Your task to perform on an android device: Empty the shopping cart on target.com. Add razer deathadder to the cart on target.com Image 0: 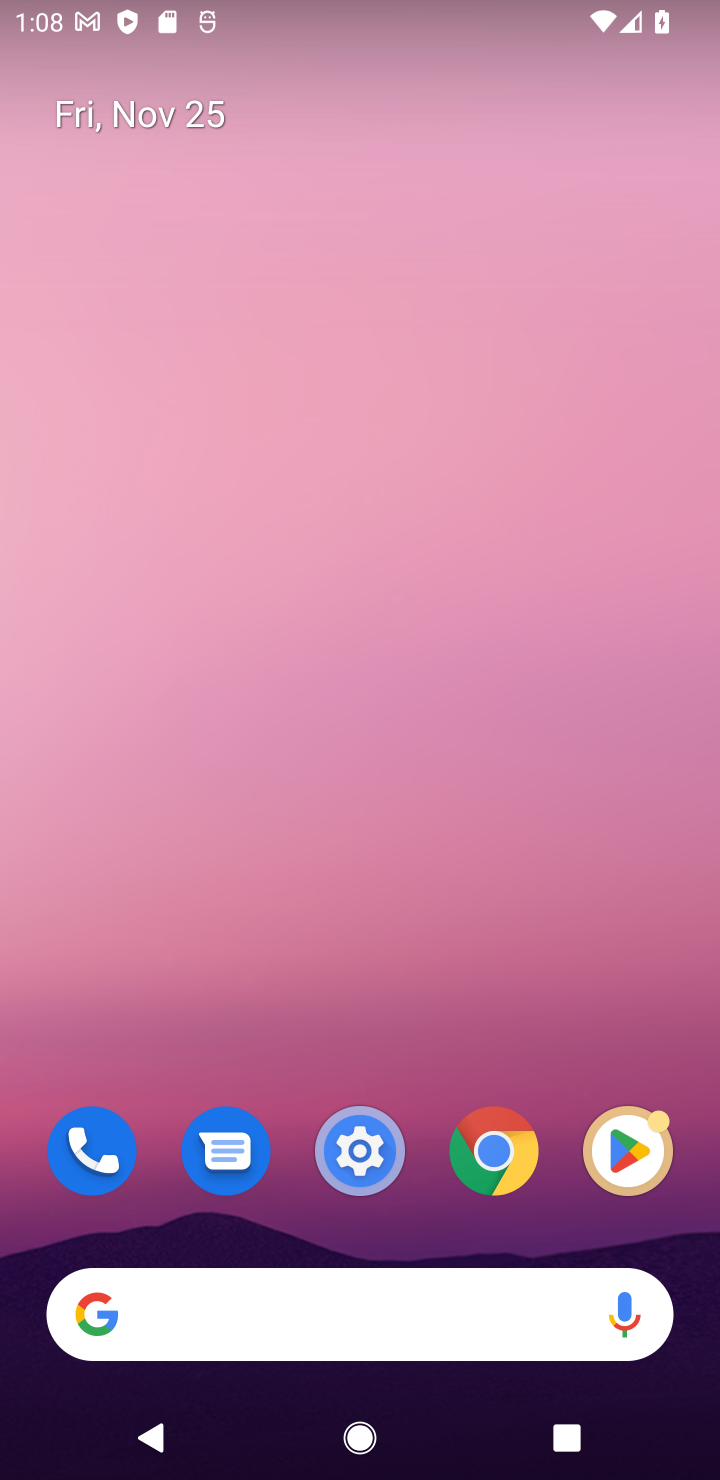
Step 0: click (385, 1298)
Your task to perform on an android device: Empty the shopping cart on target.com. Add razer deathadder to the cart on target.com Image 1: 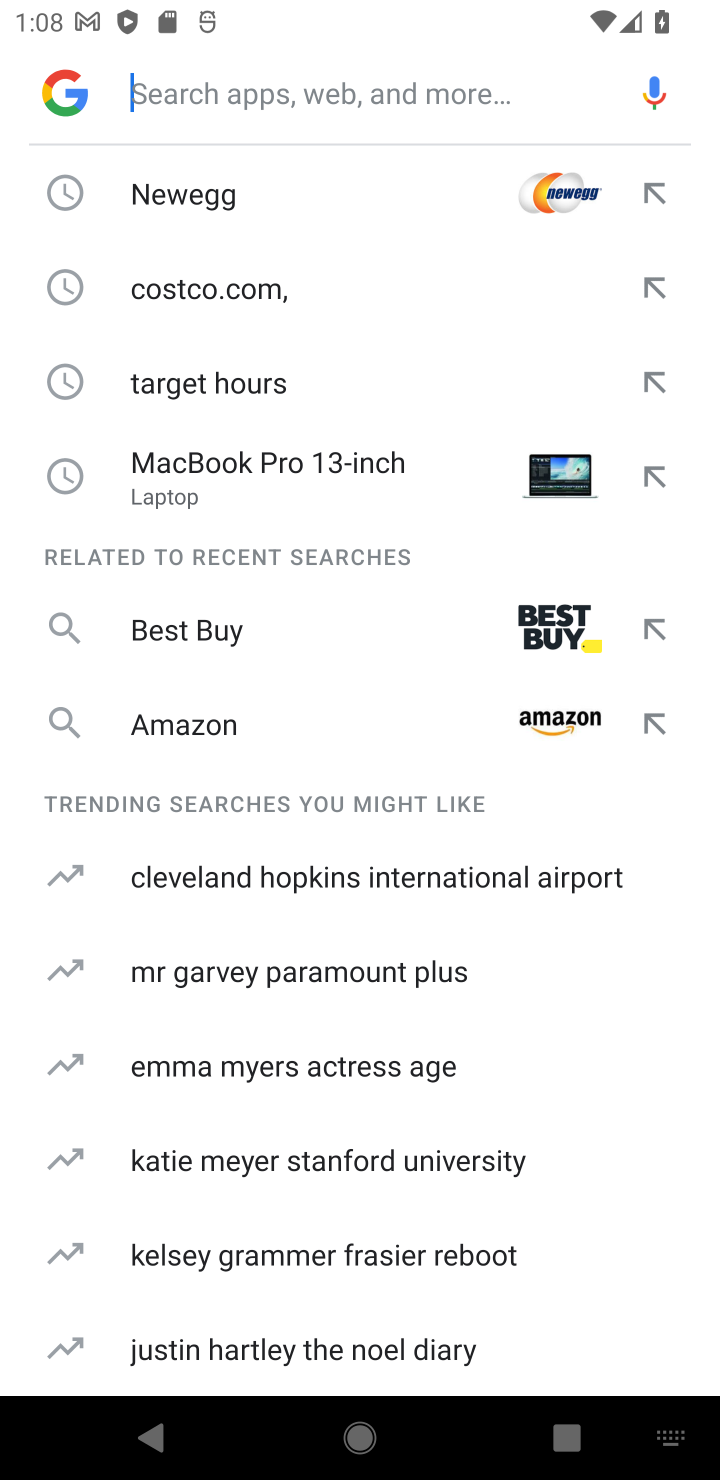
Step 1: type "target"
Your task to perform on an android device: Empty the shopping cart on target.com. Add razer deathadder to the cart on target.com Image 2: 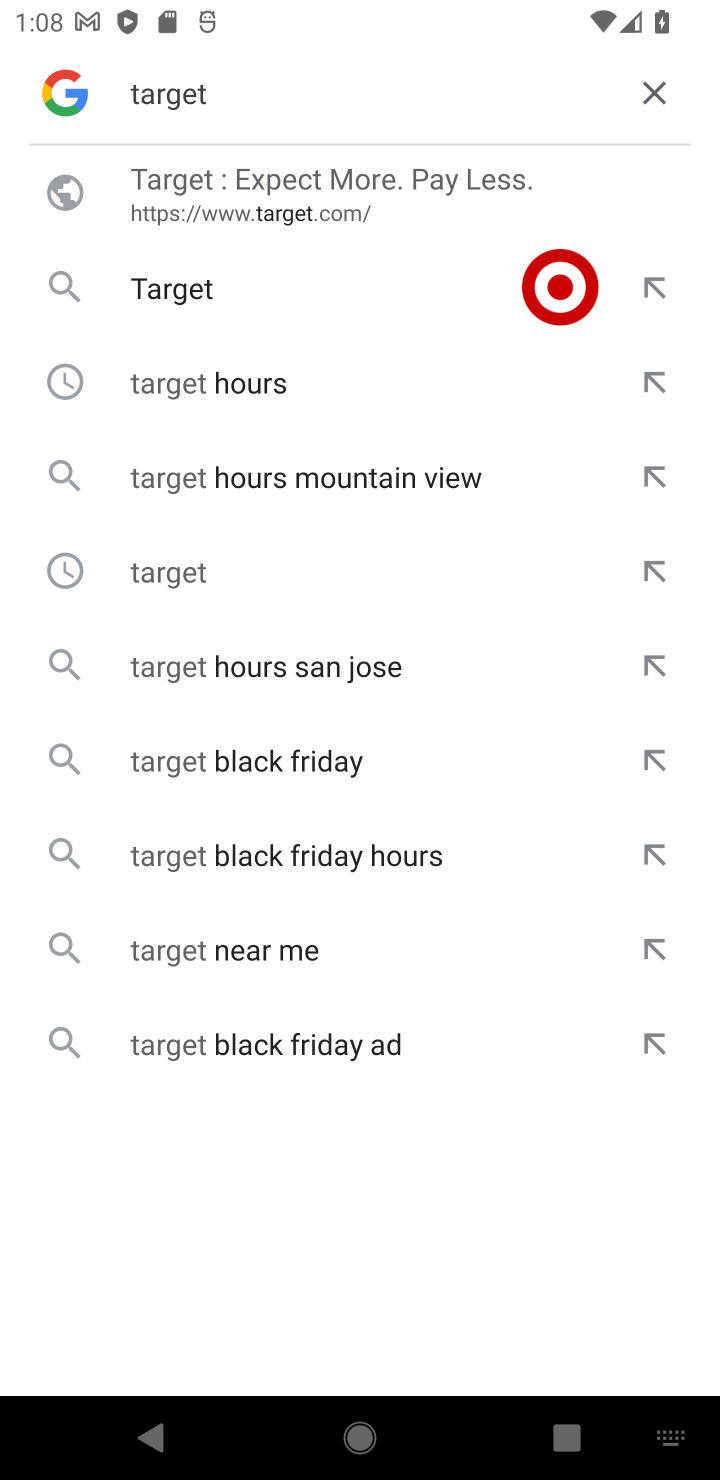
Step 2: click (299, 207)
Your task to perform on an android device: Empty the shopping cart on target.com. Add razer deathadder to the cart on target.com Image 3: 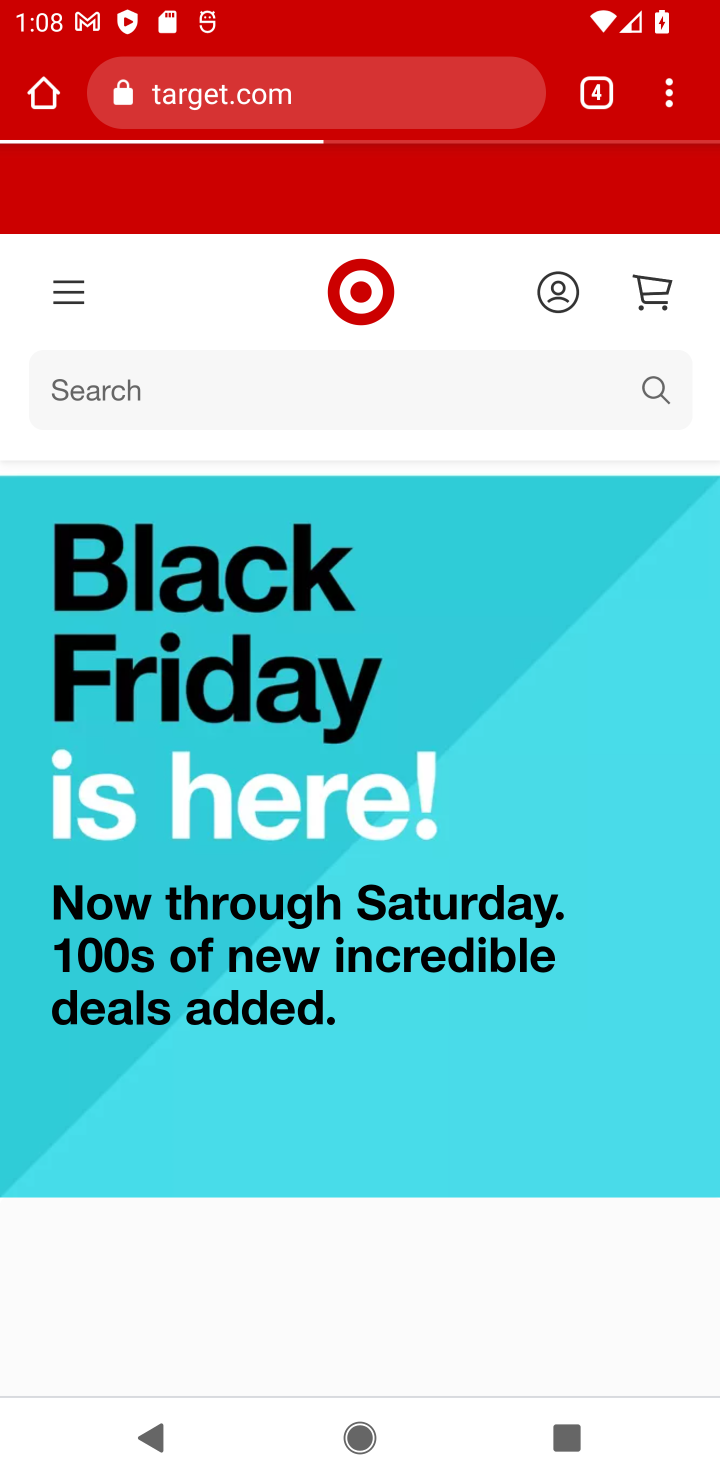
Step 3: click (381, 390)
Your task to perform on an android device: Empty the shopping cart on target.com. Add razer deathadder to the cart on target.com Image 4: 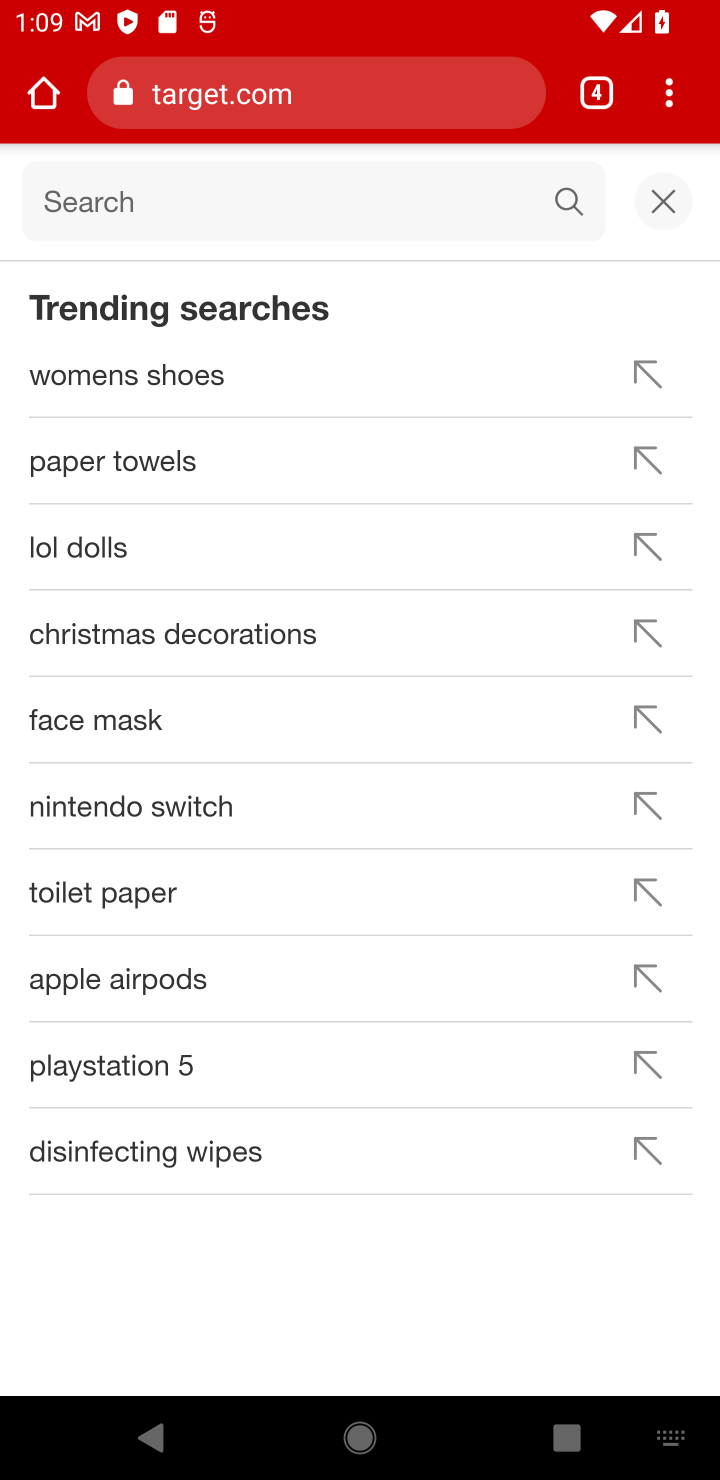
Step 4: type "razer deathhadder"
Your task to perform on an android device: Empty the shopping cart on target.com. Add razer deathadder to the cart on target.com Image 5: 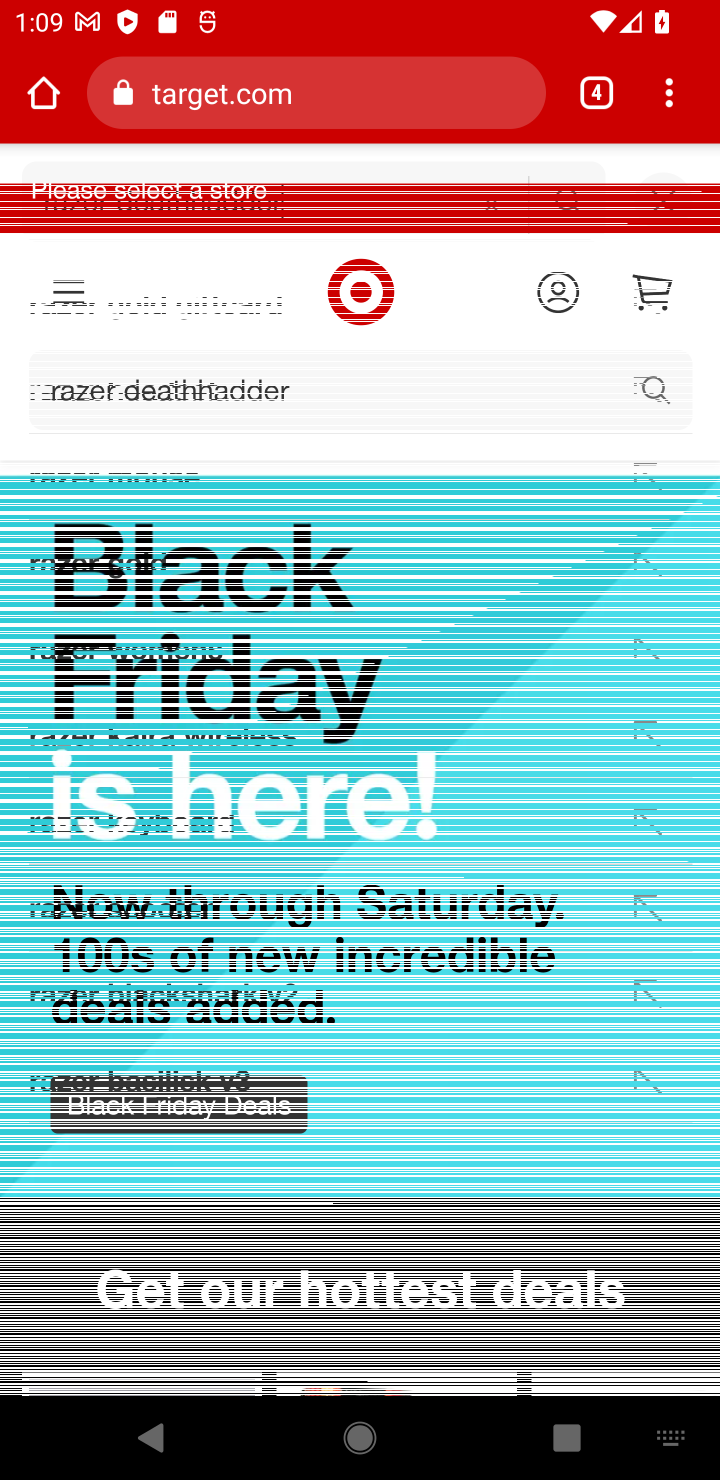
Step 5: press home button
Your task to perform on an android device: Empty the shopping cart on target.com. Add razer deathadder to the cart on target.com Image 6: 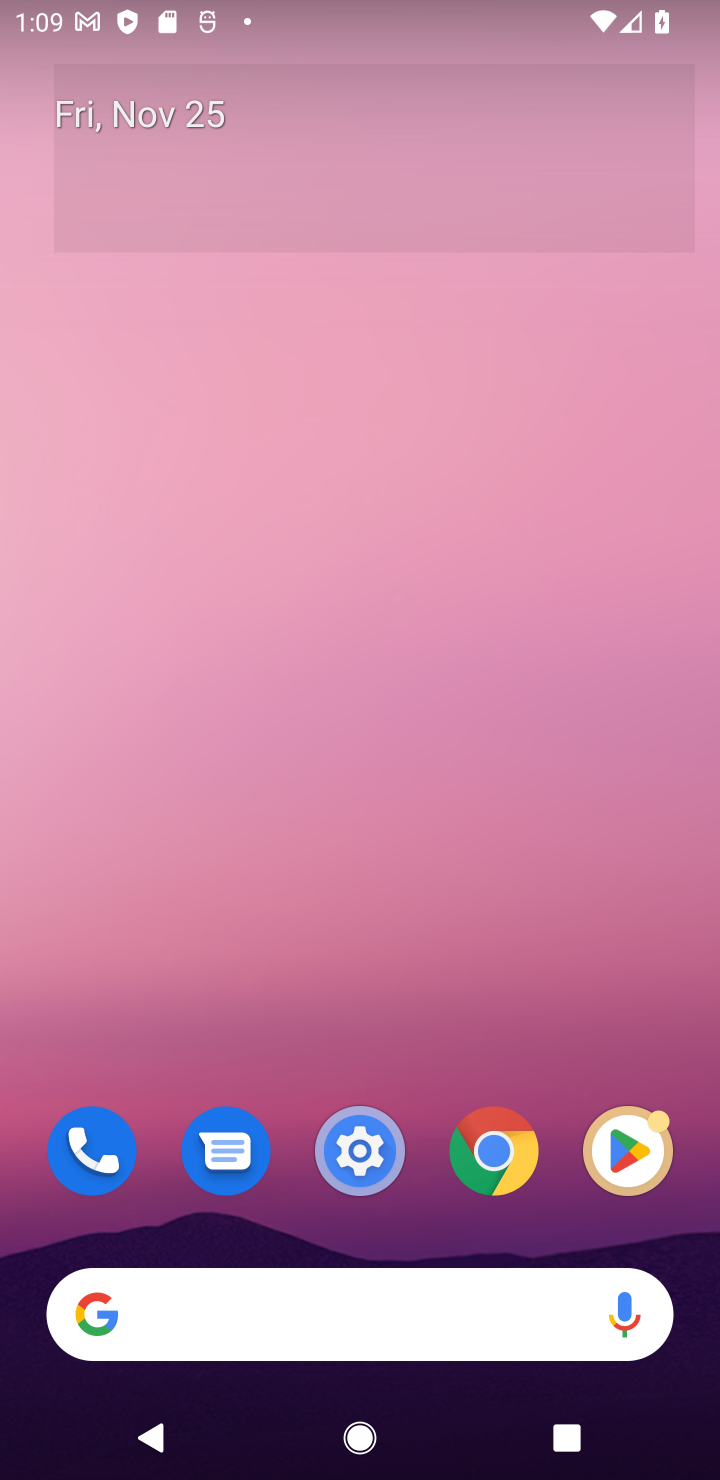
Step 6: click (261, 1316)
Your task to perform on an android device: Empty the shopping cart on target.com. Add razer deathadder to the cart on target.com Image 7: 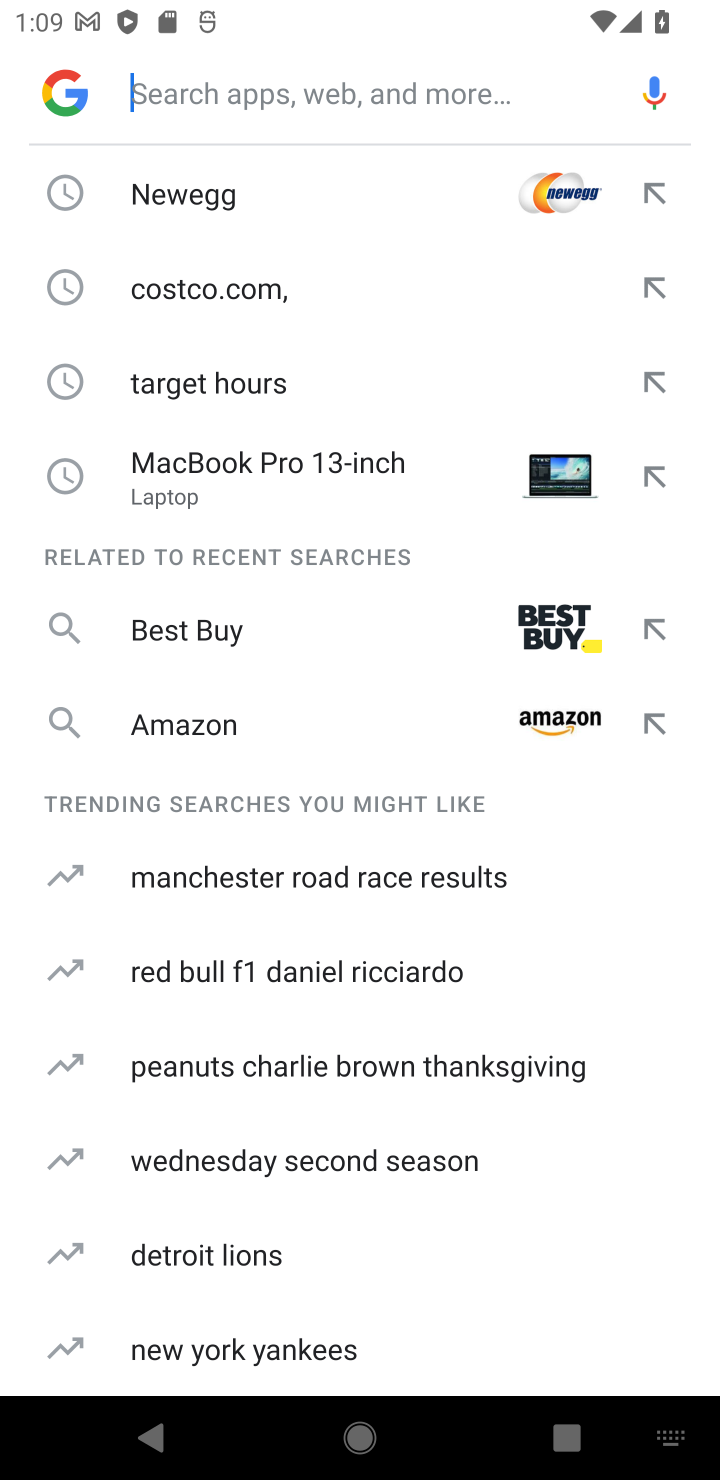
Step 7: type "target"
Your task to perform on an android device: Empty the shopping cart on target.com. Add razer deathadder to the cart on target.com Image 8: 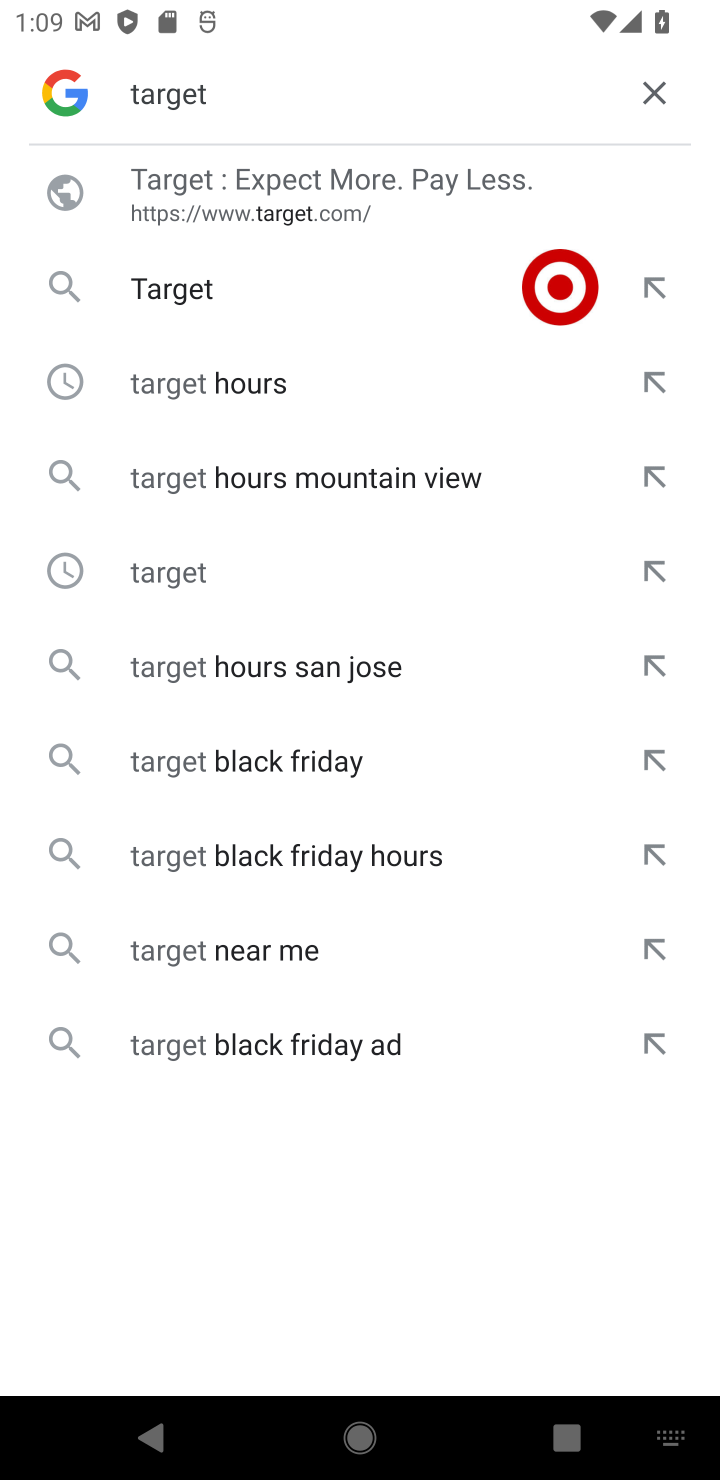
Step 8: click (225, 303)
Your task to perform on an android device: Empty the shopping cart on target.com. Add razer deathadder to the cart on target.com Image 9: 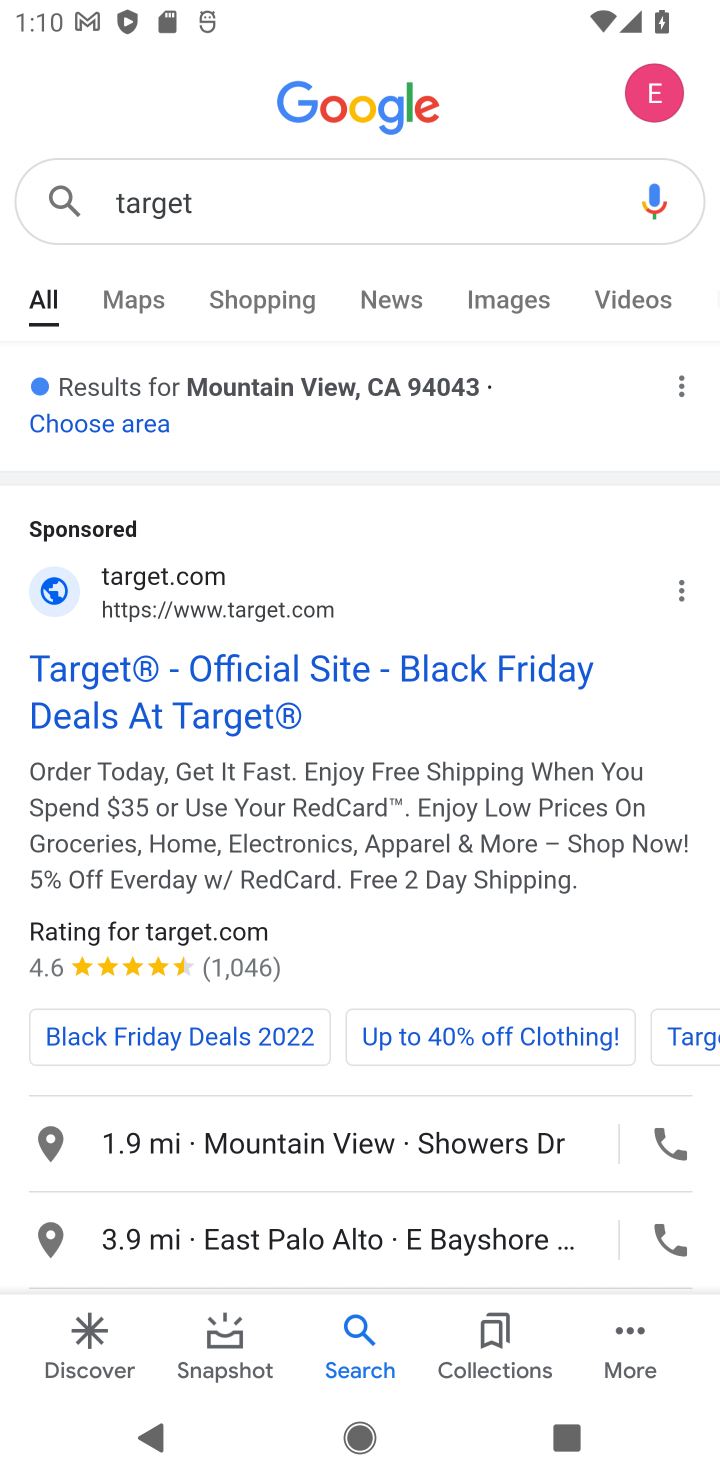
Step 9: click (234, 655)
Your task to perform on an android device: Empty the shopping cart on target.com. Add razer deathadder to the cart on target.com Image 10: 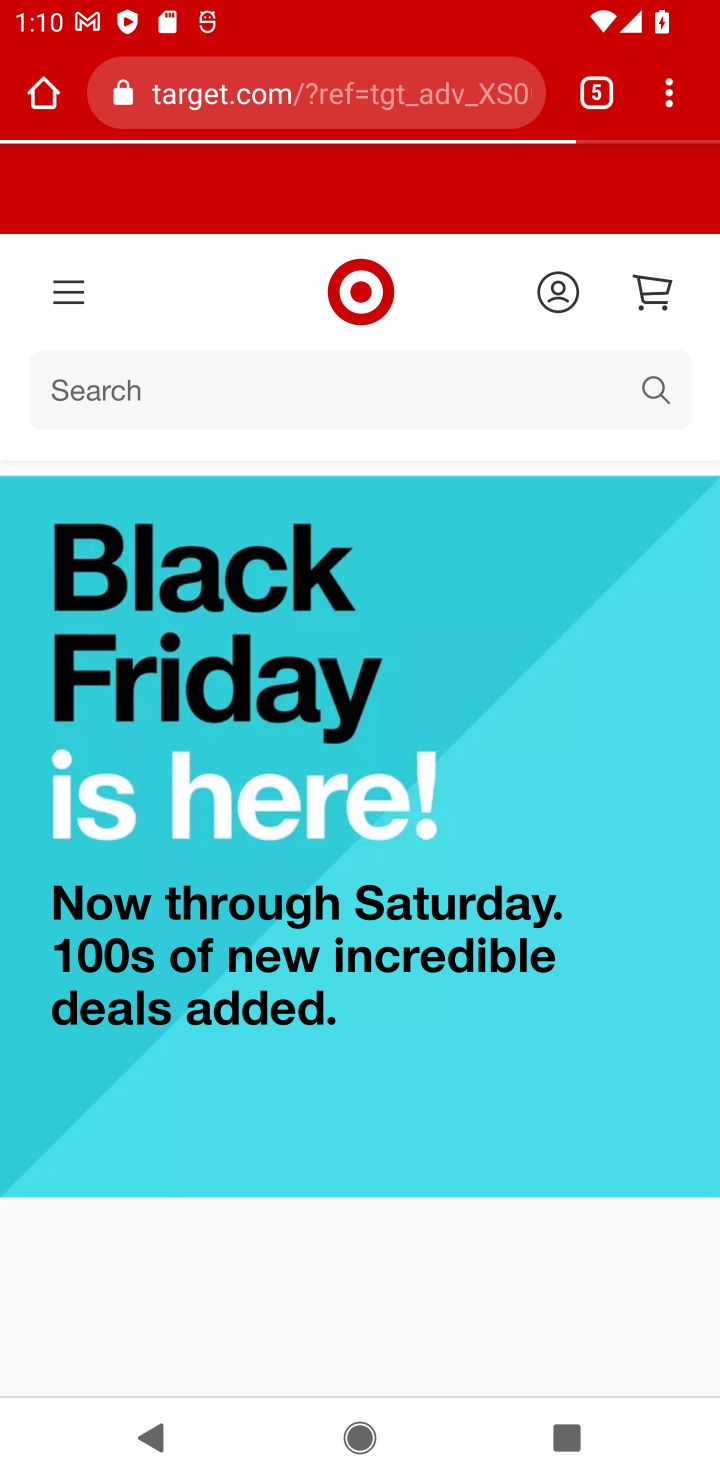
Step 10: click (316, 407)
Your task to perform on an android device: Empty the shopping cart on target.com. Add razer deathadder to the cart on target.com Image 11: 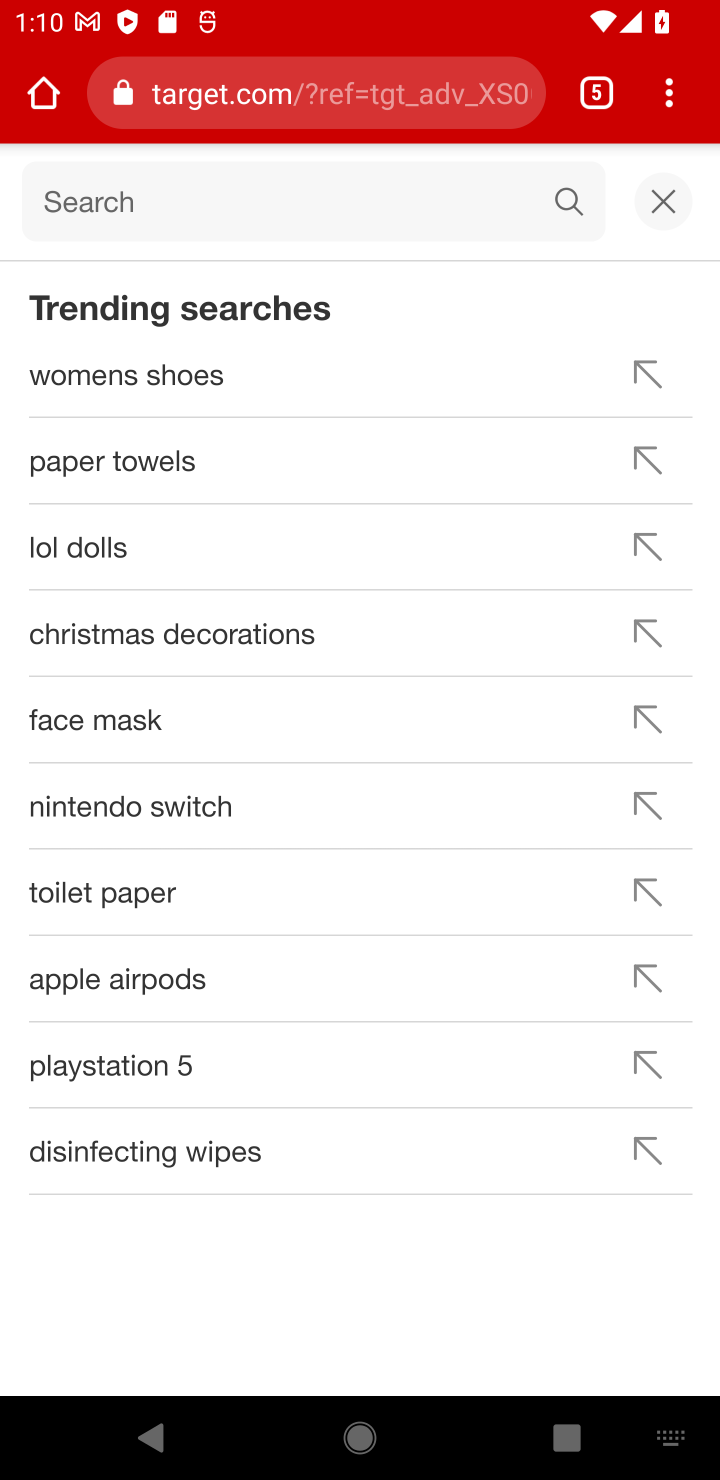
Step 11: type "razer deathhadder"
Your task to perform on an android device: Empty the shopping cart on target.com. Add razer deathadder to the cart on target.com Image 12: 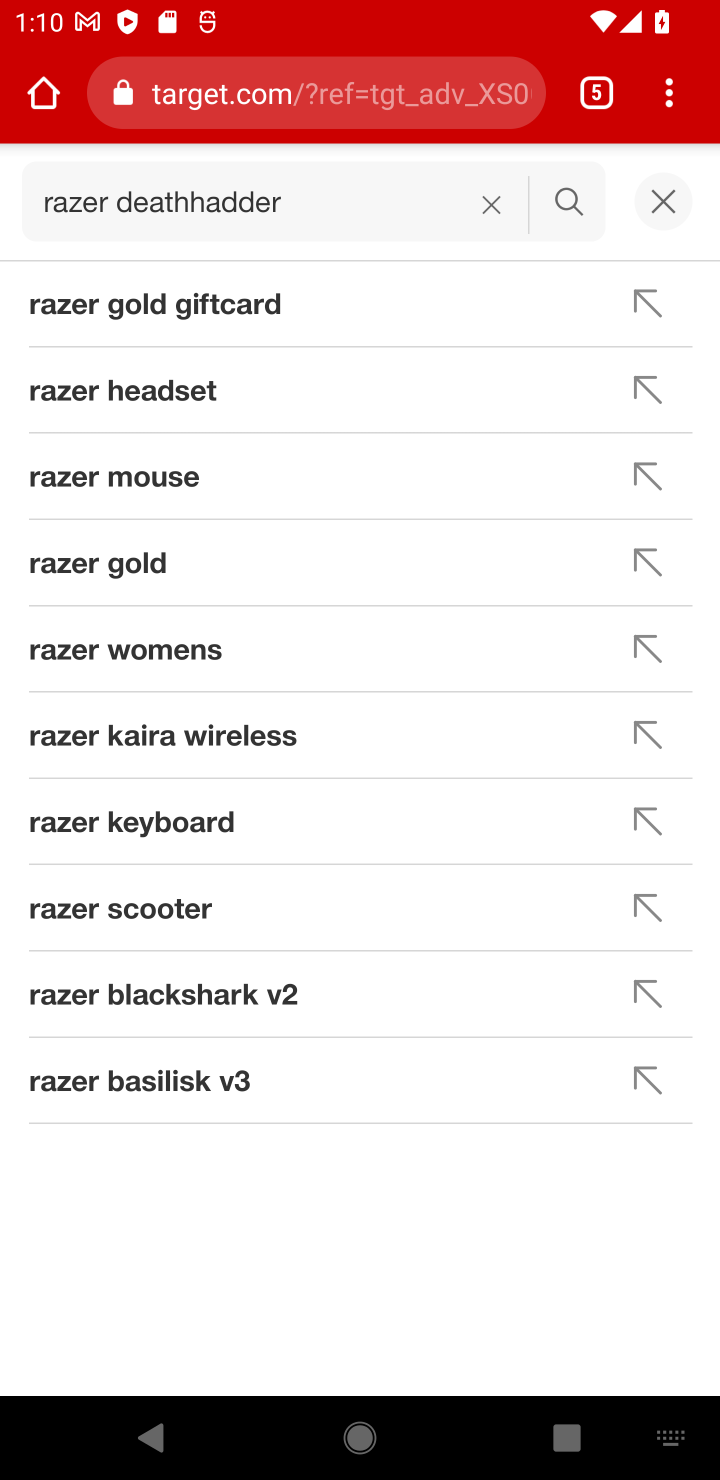
Step 12: click (586, 198)
Your task to perform on an android device: Empty the shopping cart on target.com. Add razer deathadder to the cart on target.com Image 13: 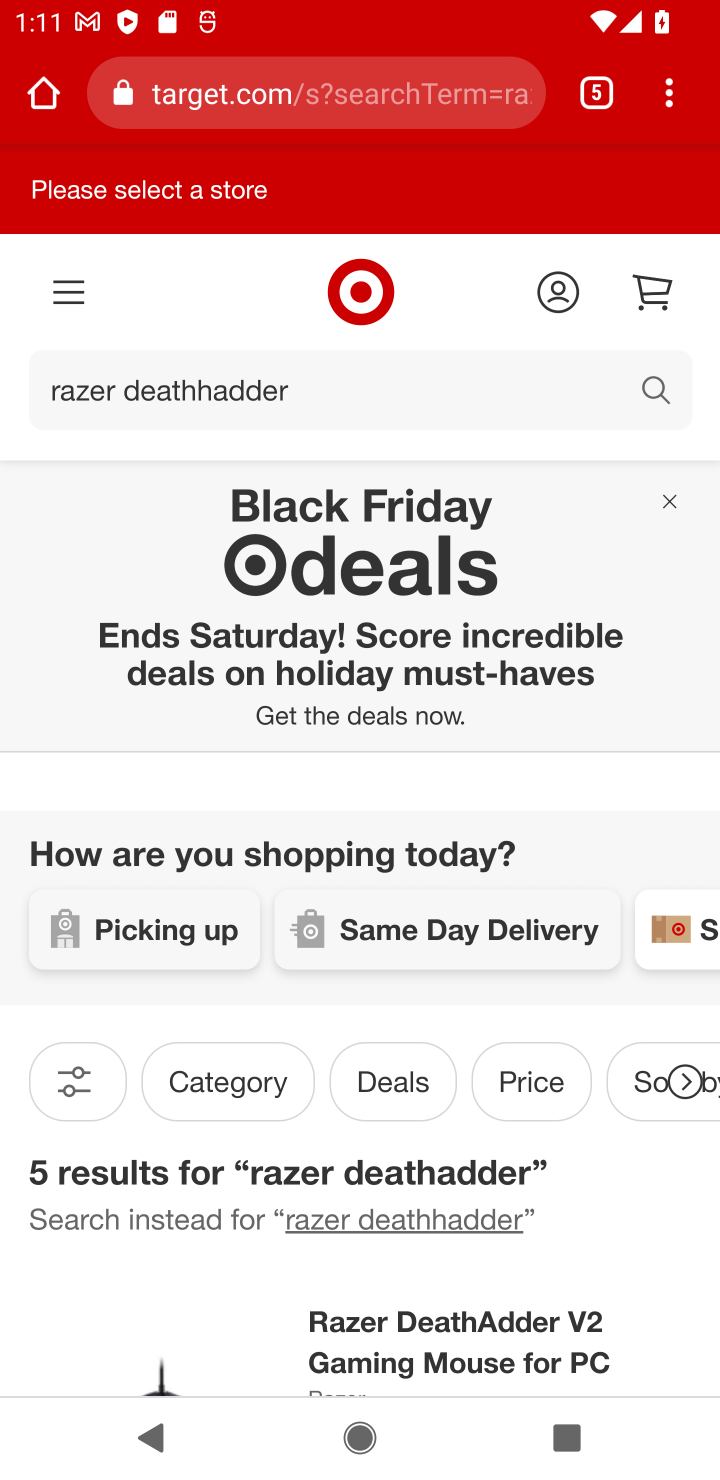
Step 13: task complete